Your task to perform on an android device: Open Google Image 0: 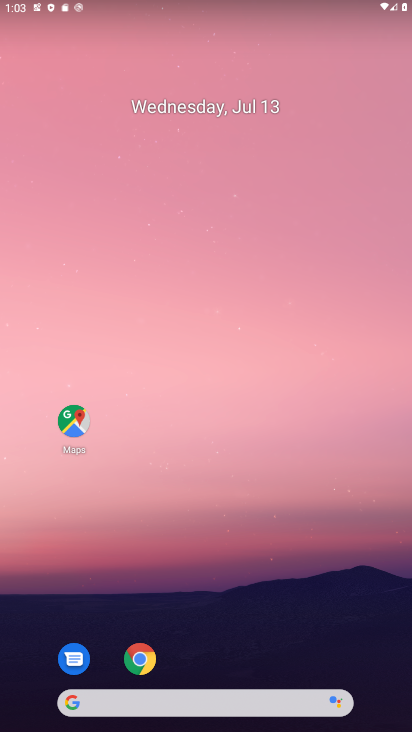
Step 0: drag from (192, 680) to (177, 81)
Your task to perform on an android device: Open Google Image 1: 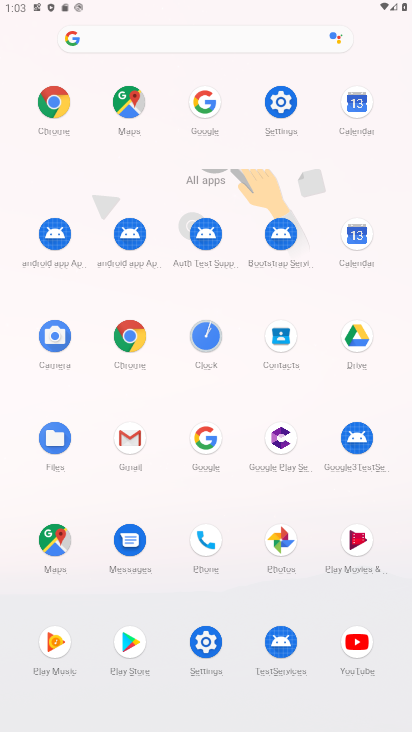
Step 1: click (207, 441)
Your task to perform on an android device: Open Google Image 2: 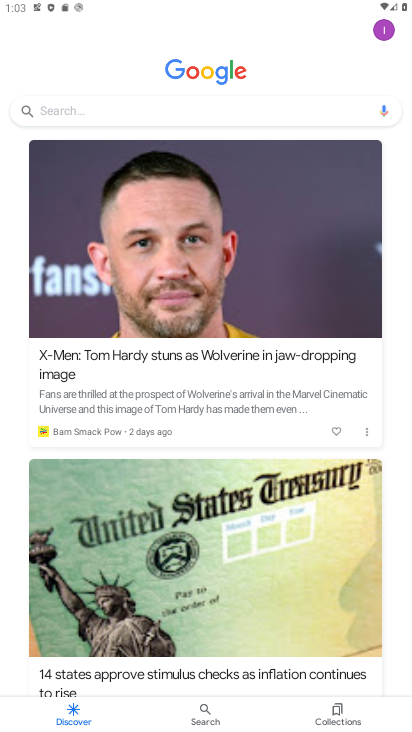
Step 2: task complete